Your task to perform on an android device: Open Chrome and go to settings Image 0: 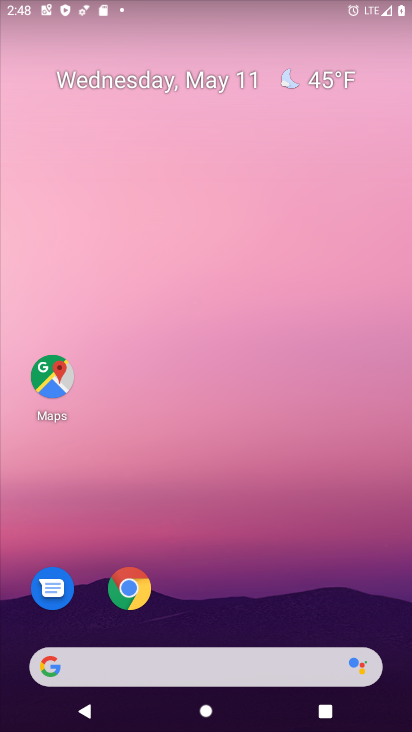
Step 0: click (135, 596)
Your task to perform on an android device: Open Chrome and go to settings Image 1: 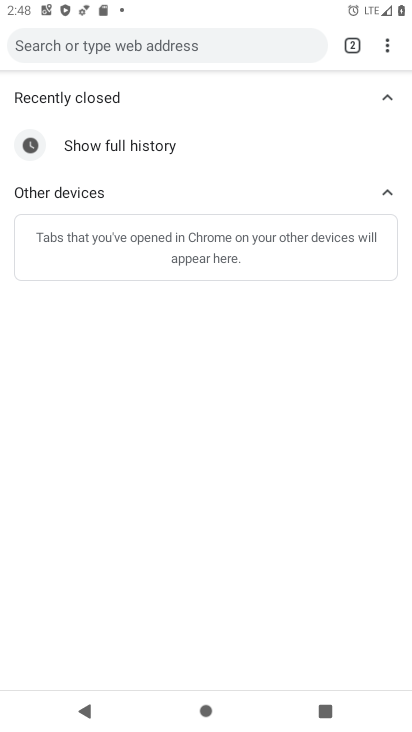
Step 1: click (384, 47)
Your task to perform on an android device: Open Chrome and go to settings Image 2: 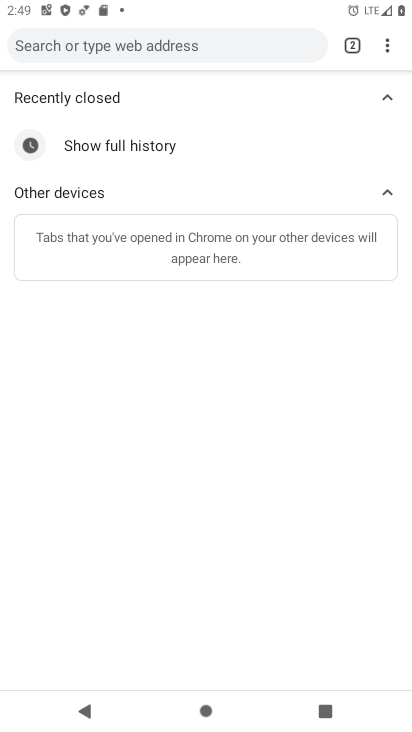
Step 2: click (394, 51)
Your task to perform on an android device: Open Chrome and go to settings Image 3: 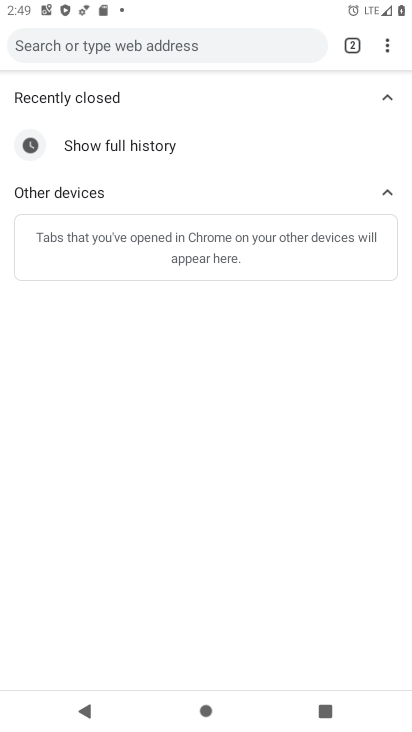
Step 3: task complete